Your task to perform on an android device: Open accessibility settings Image 0: 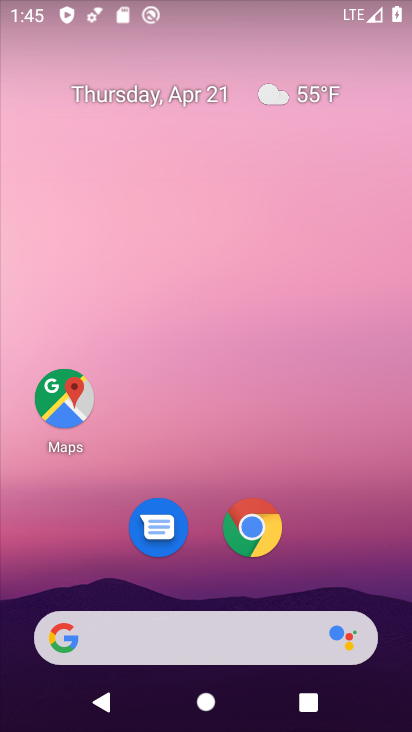
Step 0: drag from (327, 541) to (314, 79)
Your task to perform on an android device: Open accessibility settings Image 1: 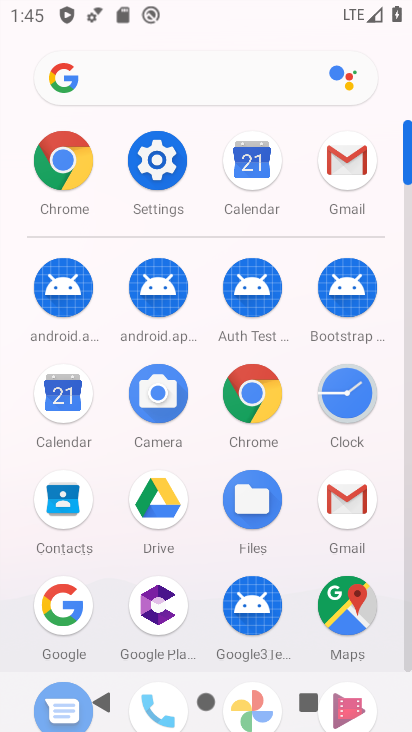
Step 1: click (159, 168)
Your task to perform on an android device: Open accessibility settings Image 2: 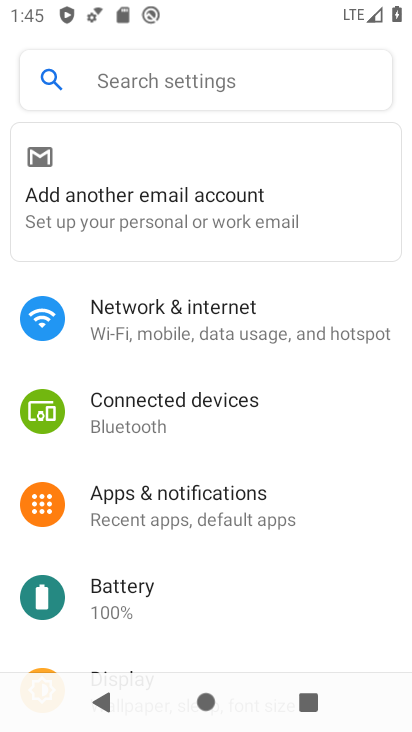
Step 2: drag from (340, 555) to (320, 374)
Your task to perform on an android device: Open accessibility settings Image 3: 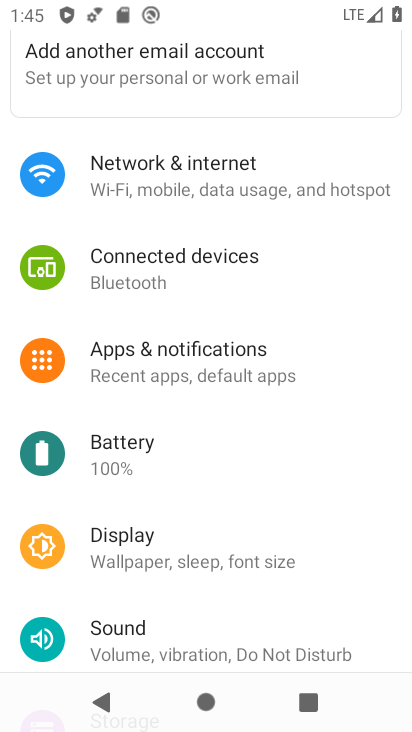
Step 3: drag from (339, 581) to (326, 432)
Your task to perform on an android device: Open accessibility settings Image 4: 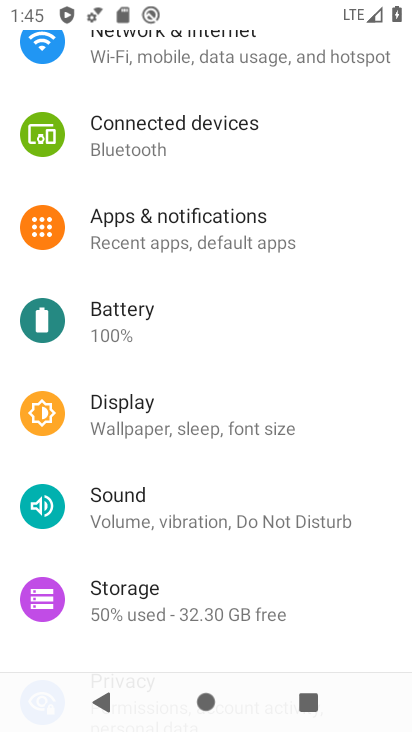
Step 4: drag from (345, 598) to (348, 449)
Your task to perform on an android device: Open accessibility settings Image 5: 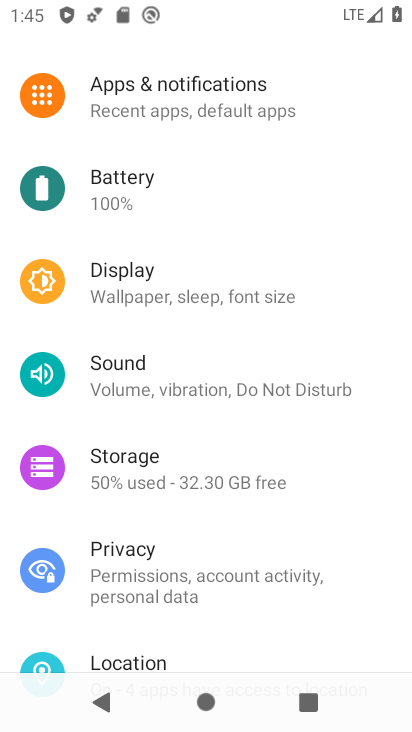
Step 5: drag from (351, 620) to (356, 473)
Your task to perform on an android device: Open accessibility settings Image 6: 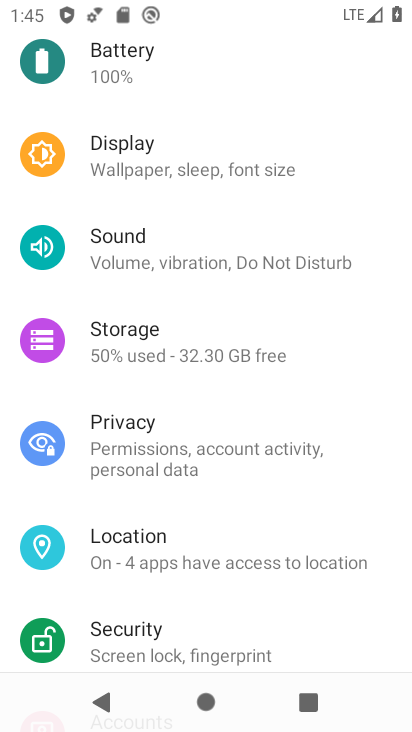
Step 6: drag from (349, 612) to (347, 500)
Your task to perform on an android device: Open accessibility settings Image 7: 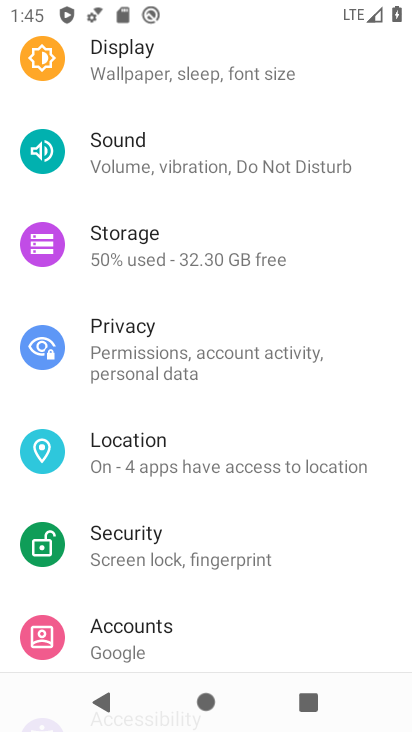
Step 7: drag from (346, 626) to (346, 521)
Your task to perform on an android device: Open accessibility settings Image 8: 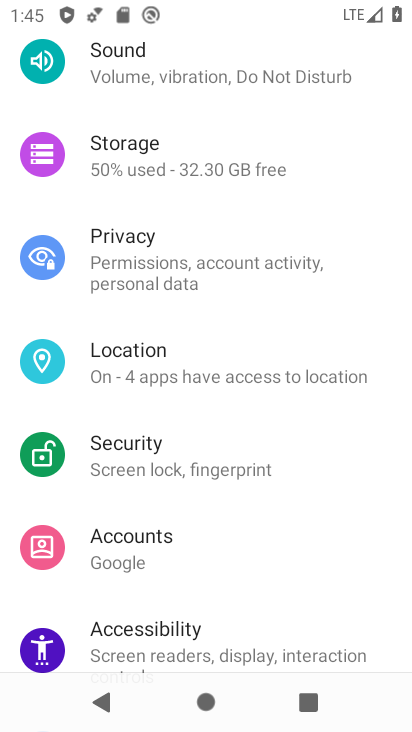
Step 8: drag from (340, 582) to (340, 466)
Your task to perform on an android device: Open accessibility settings Image 9: 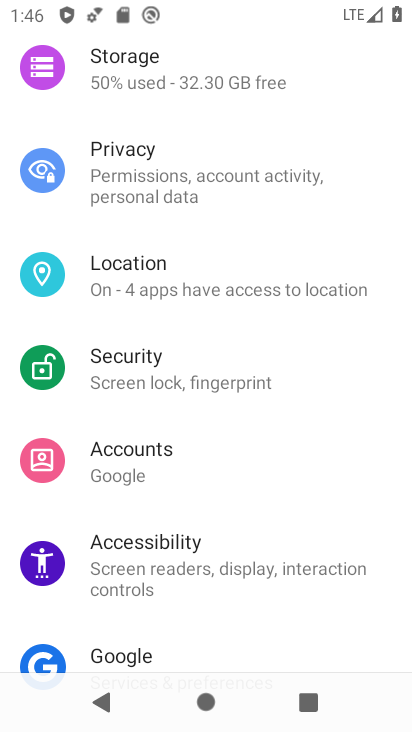
Step 9: drag from (326, 599) to (325, 478)
Your task to perform on an android device: Open accessibility settings Image 10: 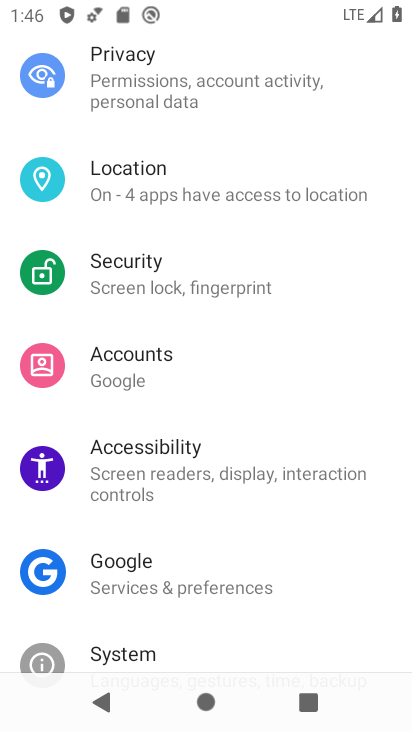
Step 10: drag from (326, 581) to (325, 430)
Your task to perform on an android device: Open accessibility settings Image 11: 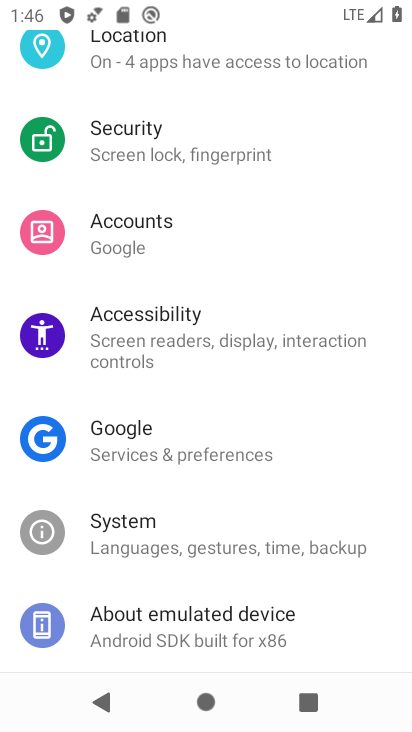
Step 11: drag from (339, 484) to (344, 392)
Your task to perform on an android device: Open accessibility settings Image 12: 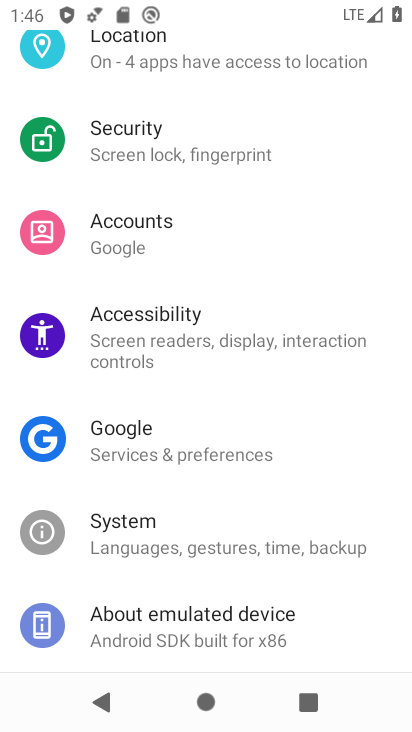
Step 12: click (292, 345)
Your task to perform on an android device: Open accessibility settings Image 13: 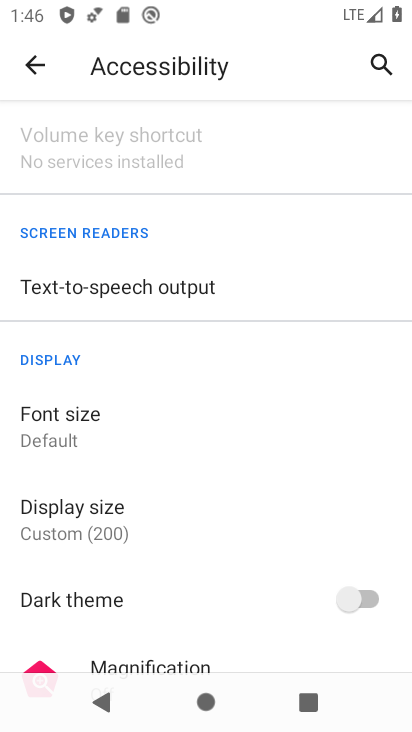
Step 13: task complete